Your task to perform on an android device: toggle airplane mode Image 0: 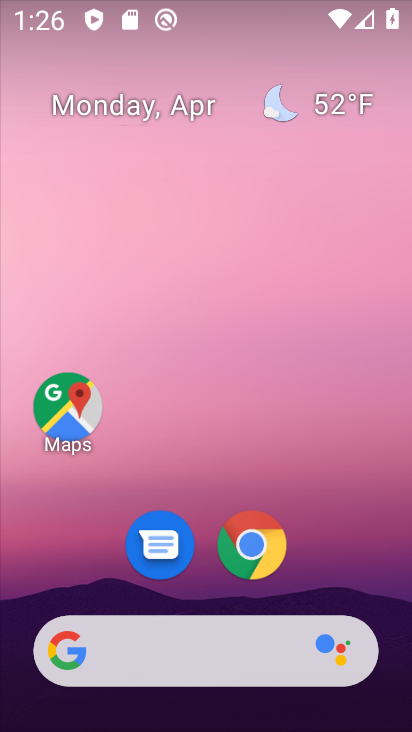
Step 0: drag from (233, 677) to (233, 163)
Your task to perform on an android device: toggle airplane mode Image 1: 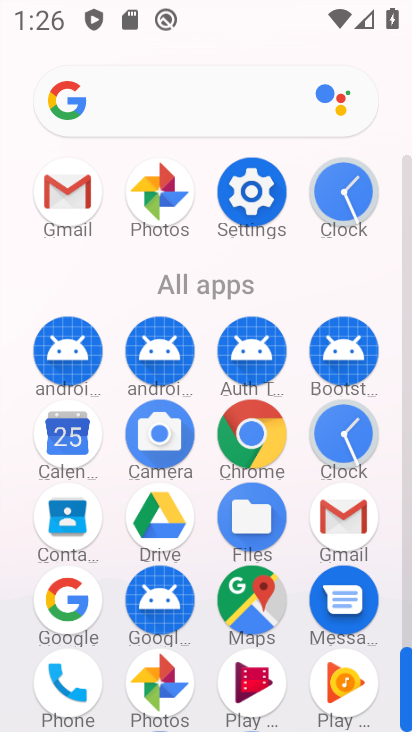
Step 1: click (244, 184)
Your task to perform on an android device: toggle airplane mode Image 2: 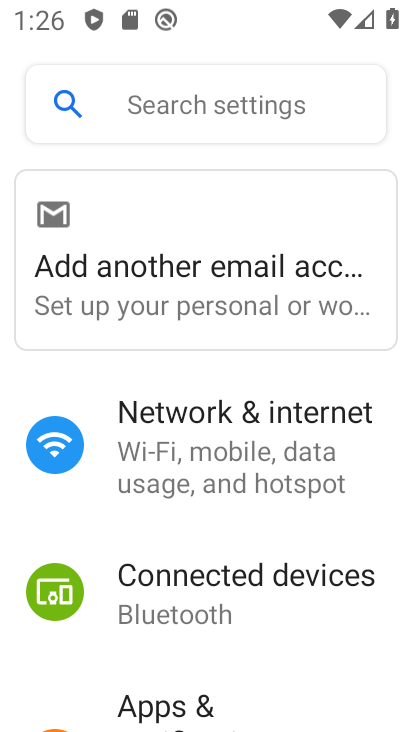
Step 2: click (211, 466)
Your task to perform on an android device: toggle airplane mode Image 3: 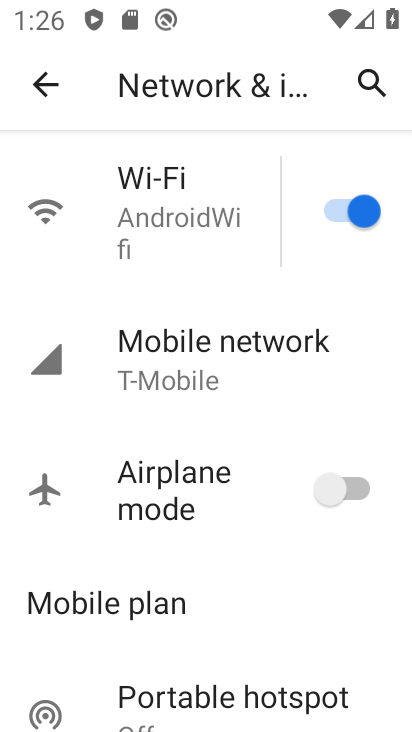
Step 3: click (354, 485)
Your task to perform on an android device: toggle airplane mode Image 4: 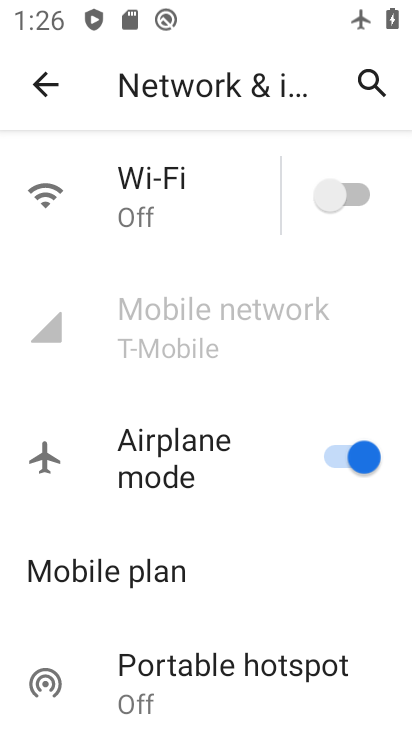
Step 4: task complete